Your task to perform on an android device: move an email to a new category in the gmail app Image 0: 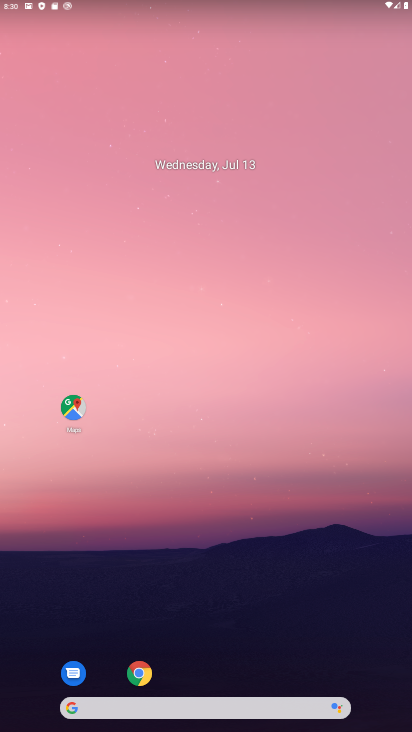
Step 0: drag from (177, 661) to (177, 348)
Your task to perform on an android device: move an email to a new category in the gmail app Image 1: 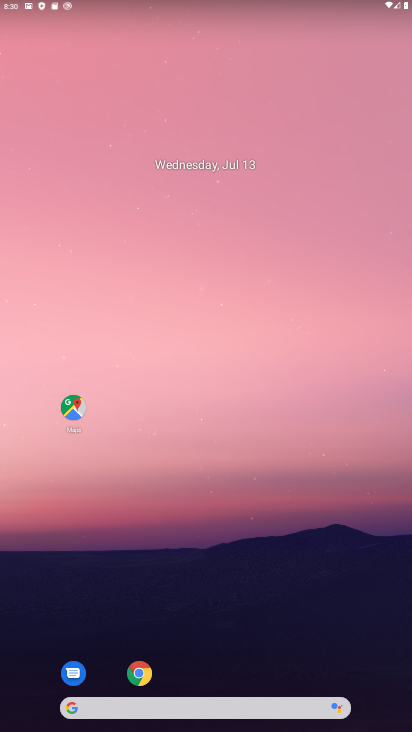
Step 1: drag from (265, 682) to (216, 327)
Your task to perform on an android device: move an email to a new category in the gmail app Image 2: 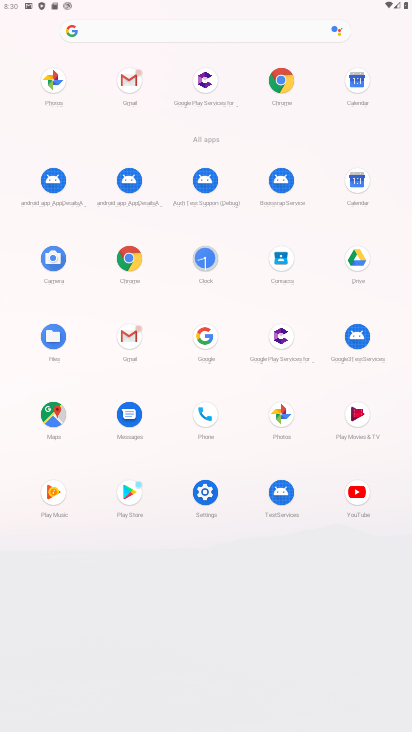
Step 2: click (125, 336)
Your task to perform on an android device: move an email to a new category in the gmail app Image 3: 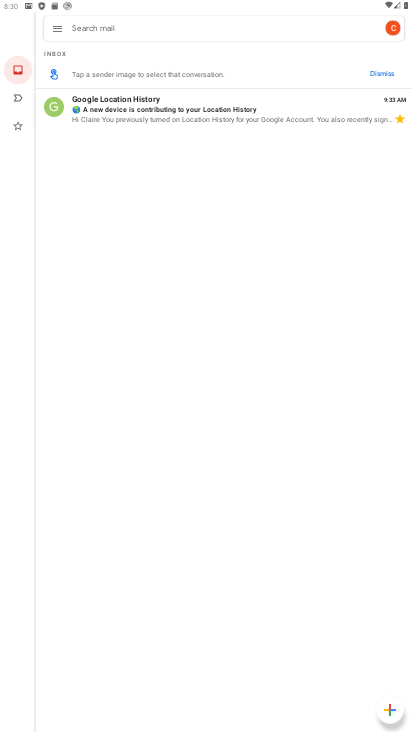
Step 3: click (115, 109)
Your task to perform on an android device: move an email to a new category in the gmail app Image 4: 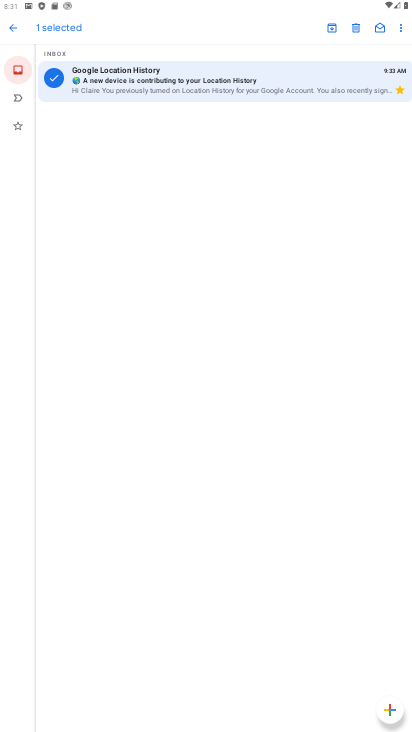
Step 4: click (402, 25)
Your task to perform on an android device: move an email to a new category in the gmail app Image 5: 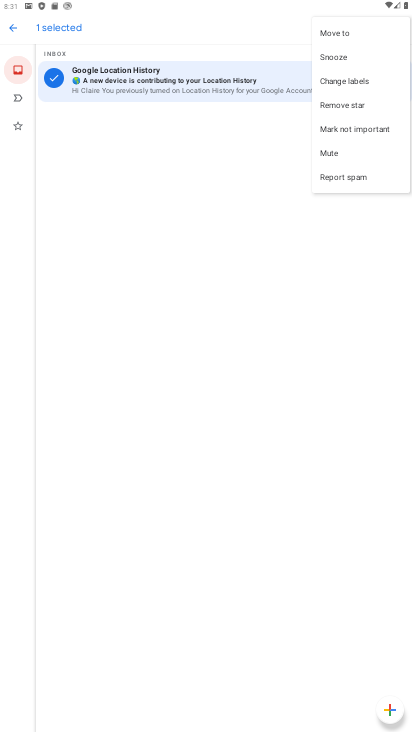
Step 5: click (340, 32)
Your task to perform on an android device: move an email to a new category in the gmail app Image 6: 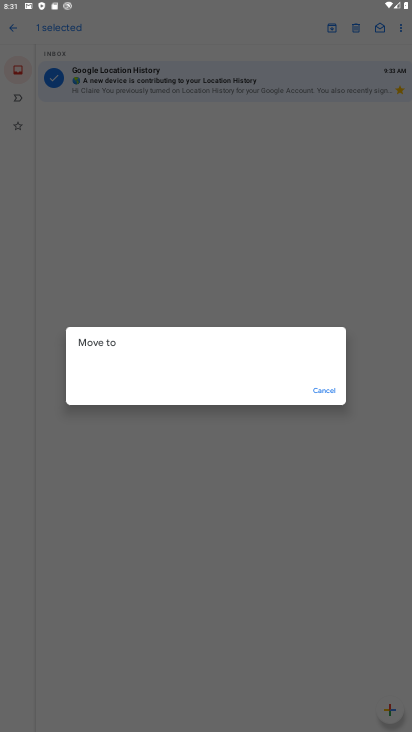
Step 6: click (331, 390)
Your task to perform on an android device: move an email to a new category in the gmail app Image 7: 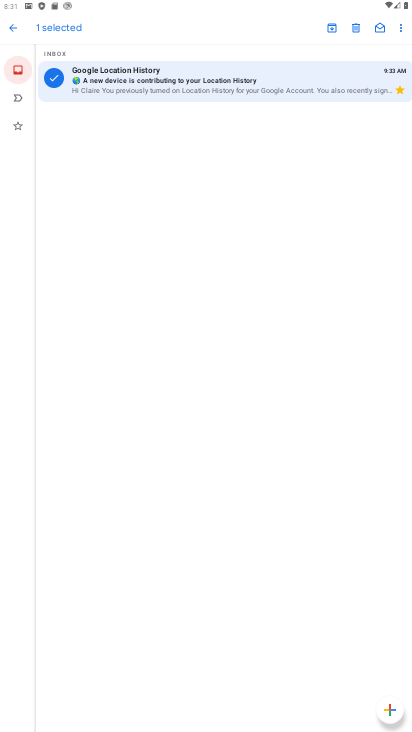
Step 7: click (398, 25)
Your task to perform on an android device: move an email to a new category in the gmail app Image 8: 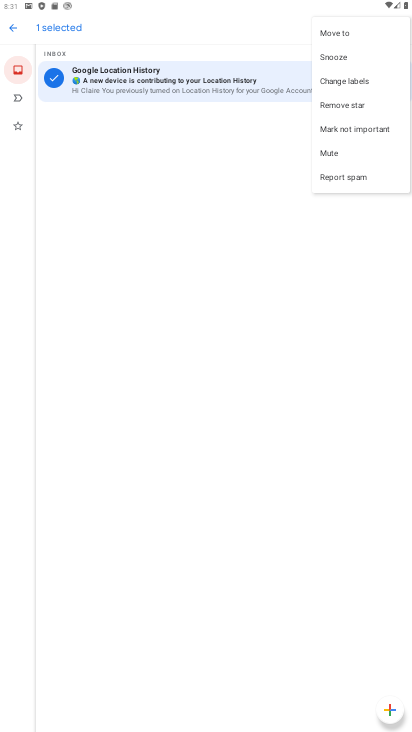
Step 8: click (342, 28)
Your task to perform on an android device: move an email to a new category in the gmail app Image 9: 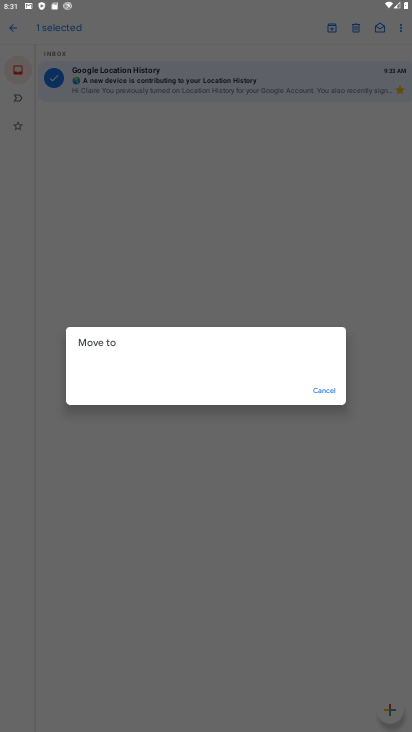
Step 9: click (100, 340)
Your task to perform on an android device: move an email to a new category in the gmail app Image 10: 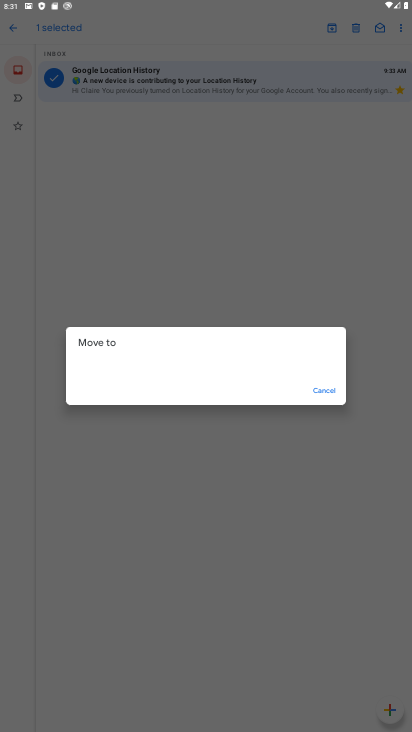
Step 10: click (146, 450)
Your task to perform on an android device: move an email to a new category in the gmail app Image 11: 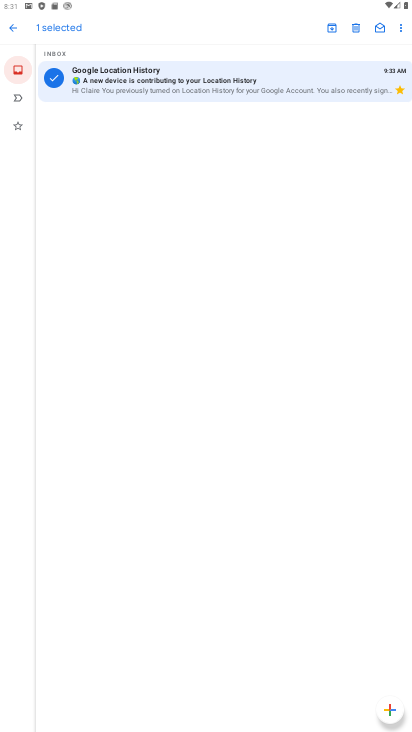
Step 11: task complete